Your task to perform on an android device: Search for a new lawnmower on home depot Image 0: 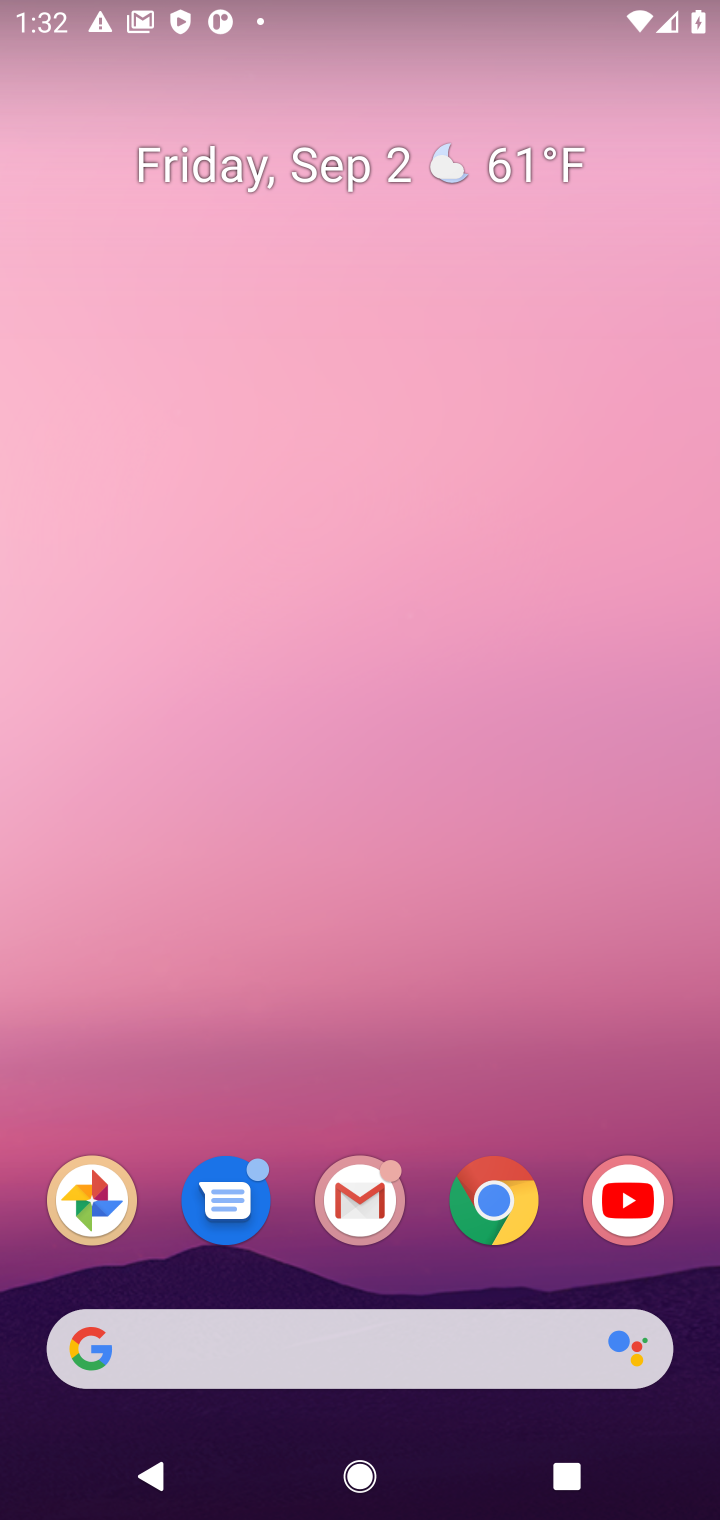
Step 0: click (477, 1202)
Your task to perform on an android device: Search for a new lawnmower on home depot Image 1: 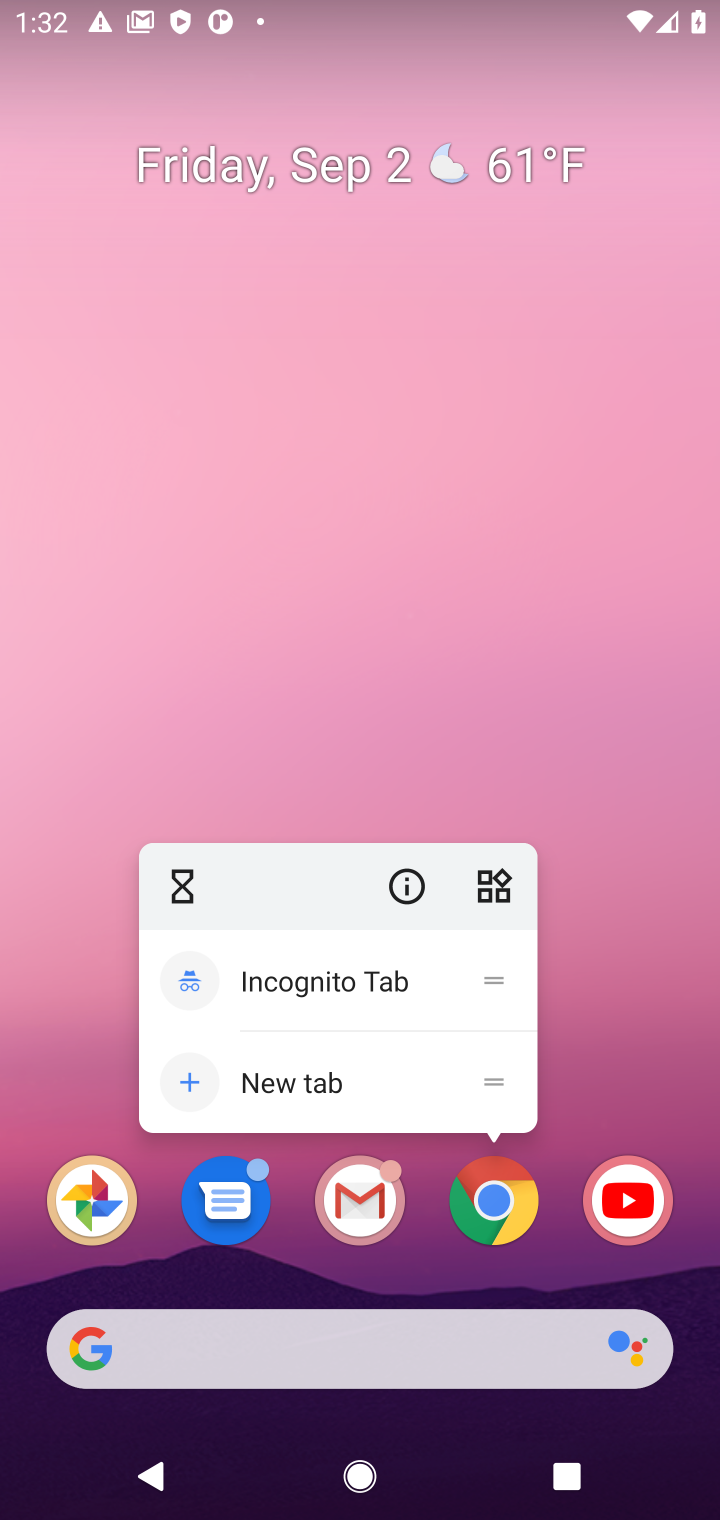
Step 1: click (488, 1192)
Your task to perform on an android device: Search for a new lawnmower on home depot Image 2: 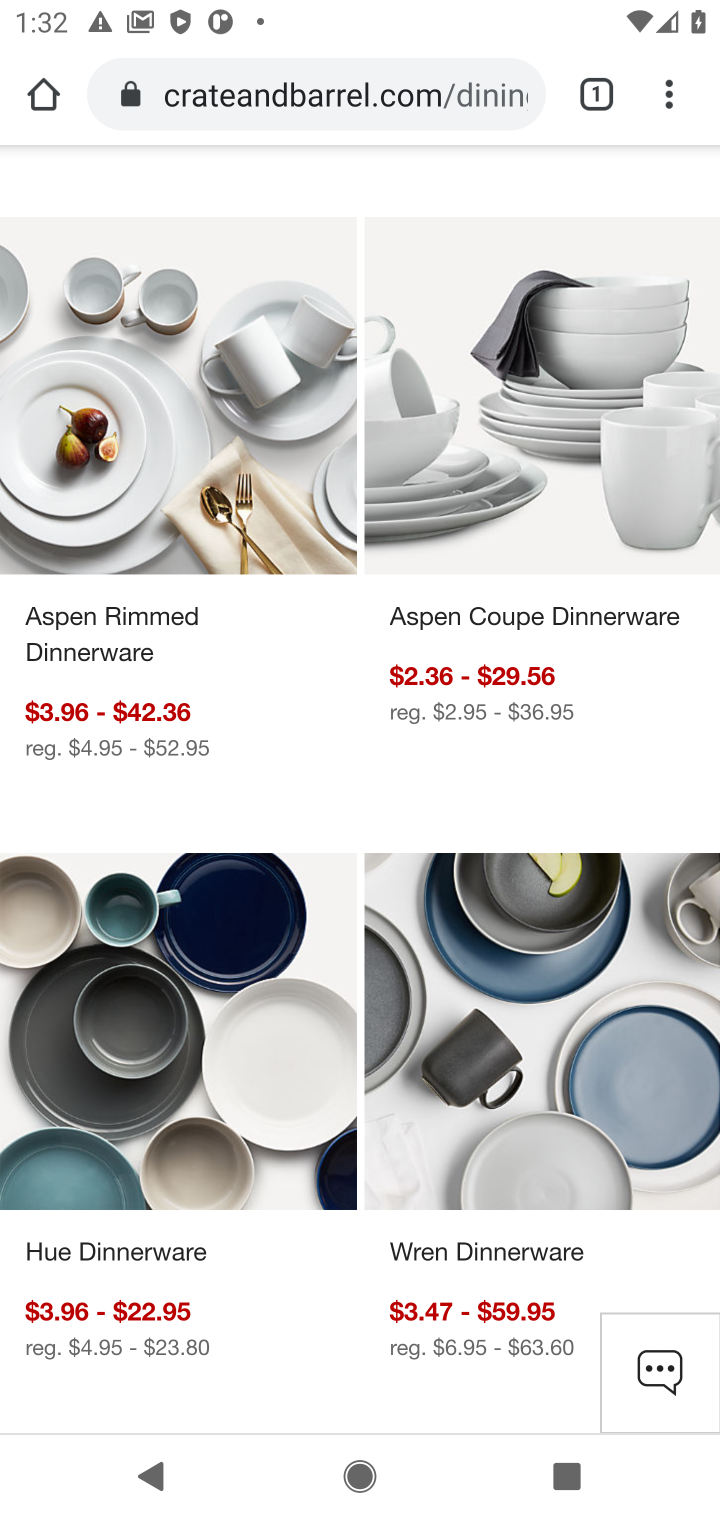
Step 2: click (359, 83)
Your task to perform on an android device: Search for a new lawnmower on home depot Image 3: 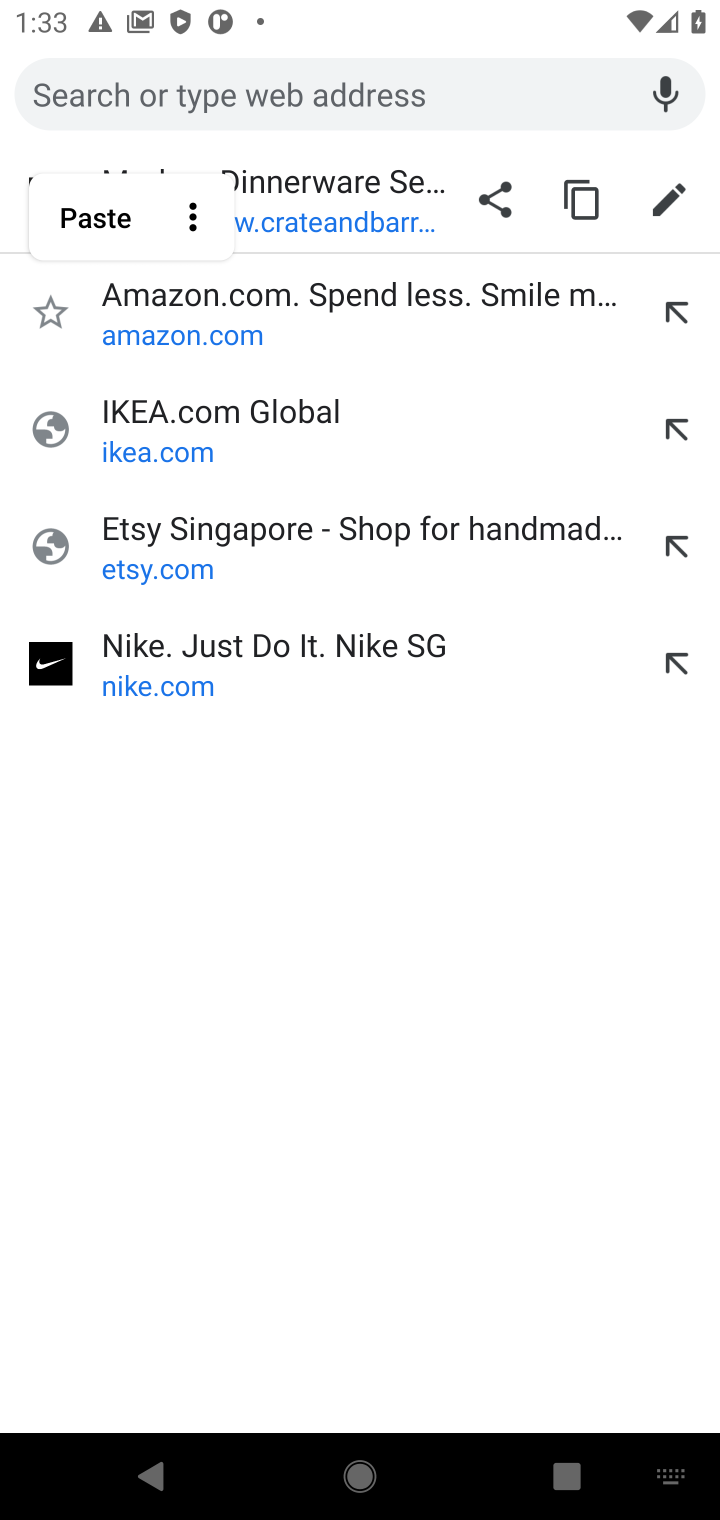
Step 3: type "home depot"
Your task to perform on an android device: Search for a new lawnmower on home depot Image 4: 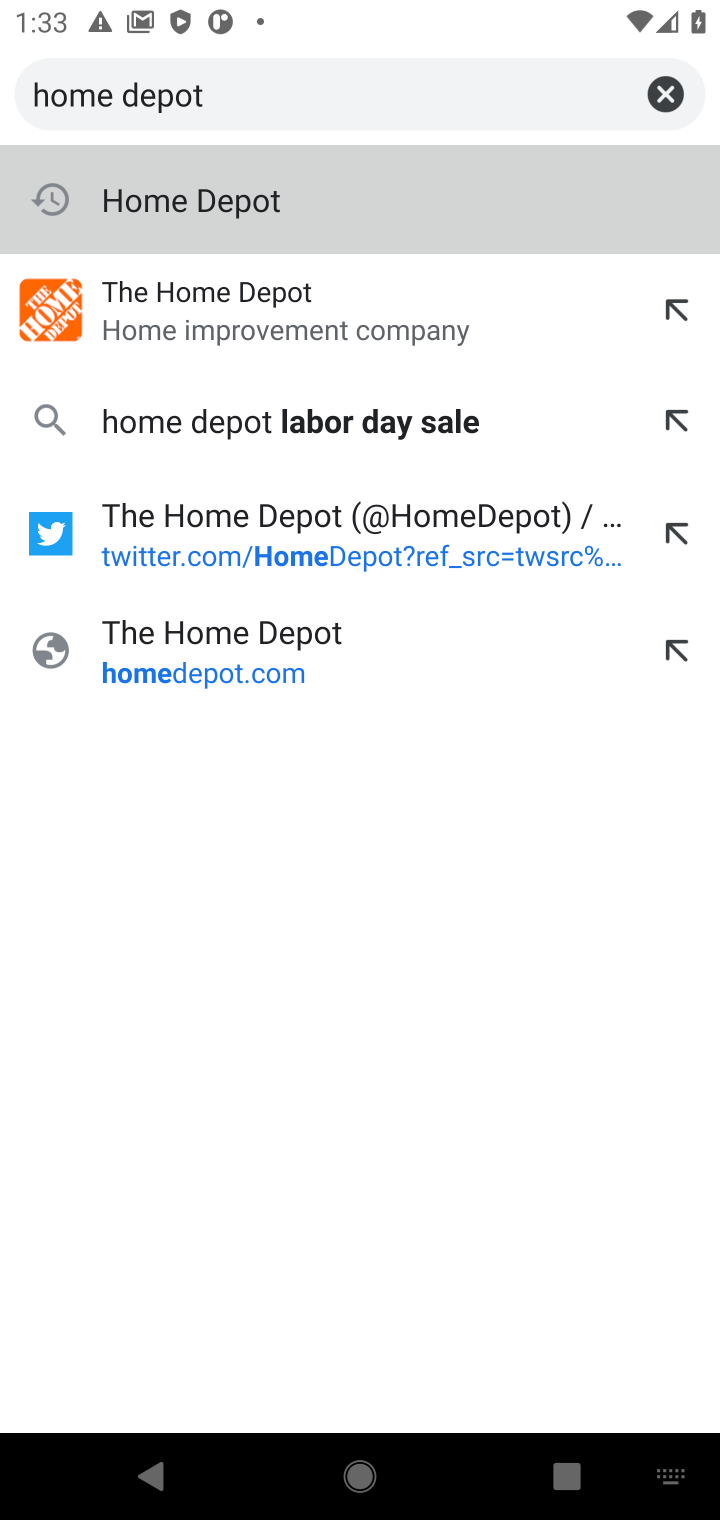
Step 4: press enter
Your task to perform on an android device: Search for a new lawnmower on home depot Image 5: 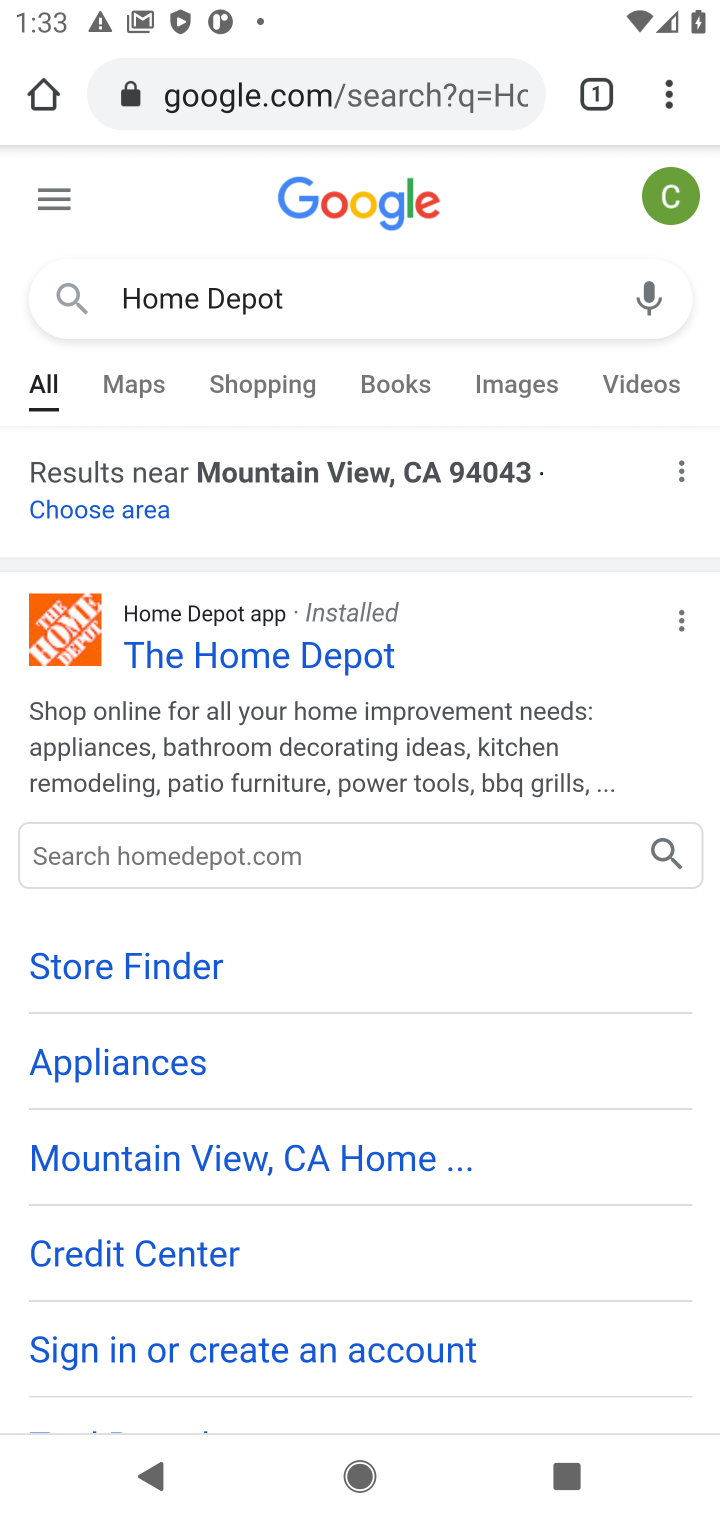
Step 5: task complete